Your task to perform on an android device: turn off location Image 0: 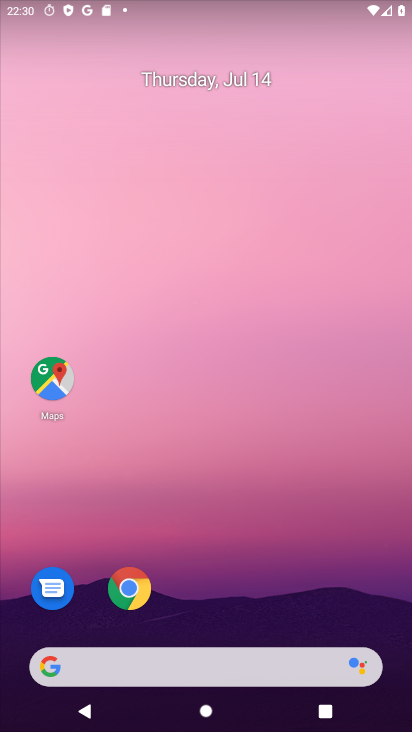
Step 0: drag from (228, 594) to (274, 53)
Your task to perform on an android device: turn off location Image 1: 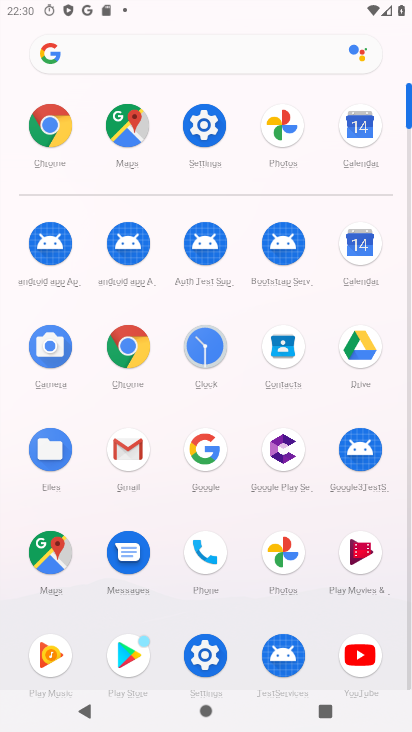
Step 1: click (208, 113)
Your task to perform on an android device: turn off location Image 2: 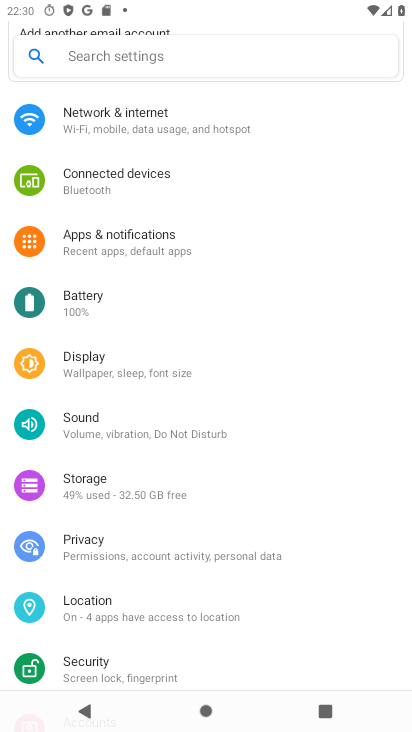
Step 2: click (123, 585)
Your task to perform on an android device: turn off location Image 3: 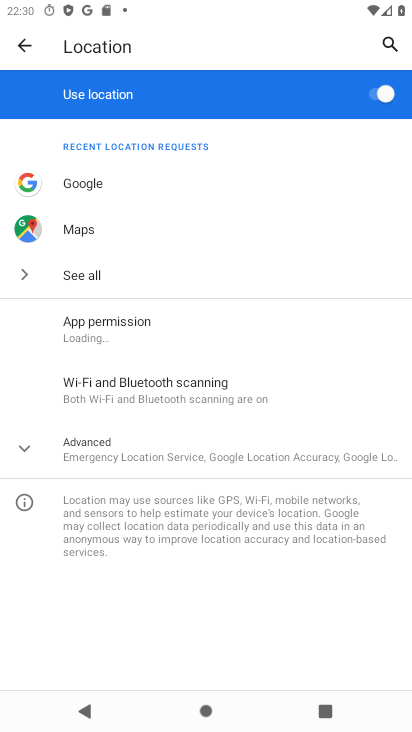
Step 3: click (375, 83)
Your task to perform on an android device: turn off location Image 4: 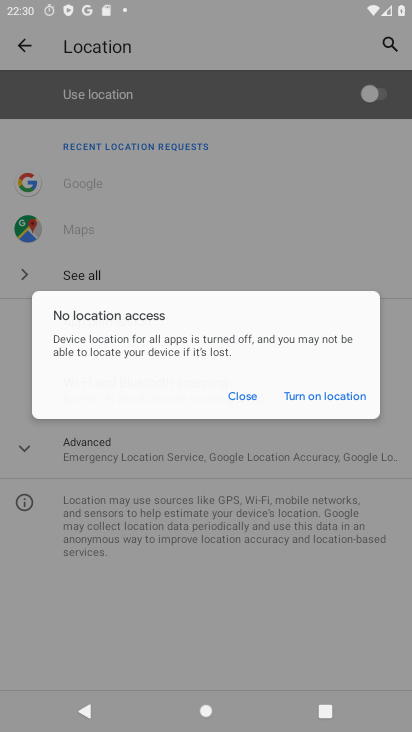
Step 4: task complete